Your task to perform on an android device: toggle notification dots Image 0: 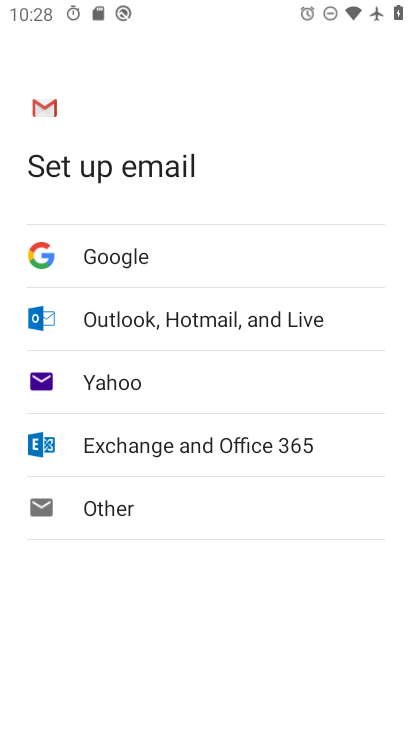
Step 0: press home button
Your task to perform on an android device: toggle notification dots Image 1: 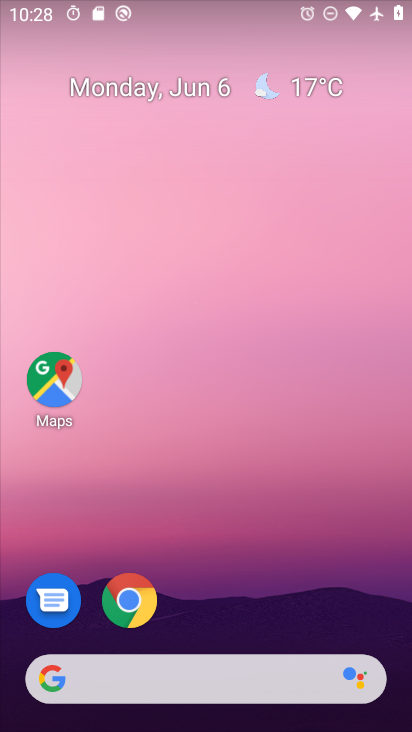
Step 1: drag from (330, 617) to (176, 18)
Your task to perform on an android device: toggle notification dots Image 2: 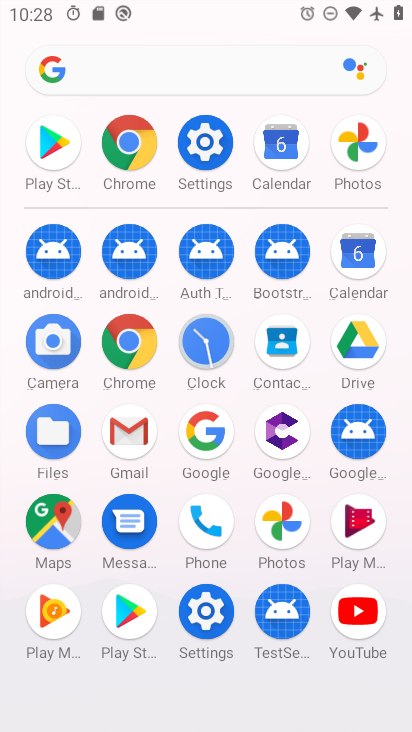
Step 2: click (208, 142)
Your task to perform on an android device: toggle notification dots Image 3: 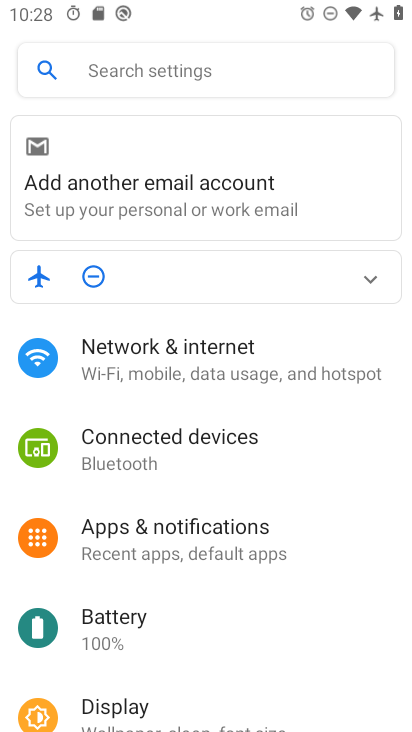
Step 3: click (251, 527)
Your task to perform on an android device: toggle notification dots Image 4: 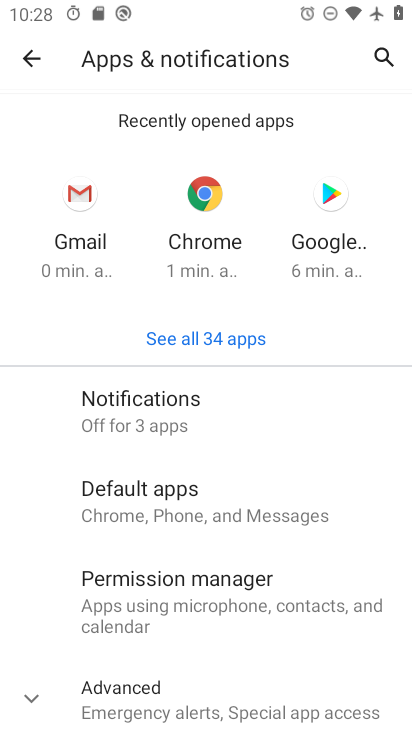
Step 4: drag from (265, 656) to (251, 424)
Your task to perform on an android device: toggle notification dots Image 5: 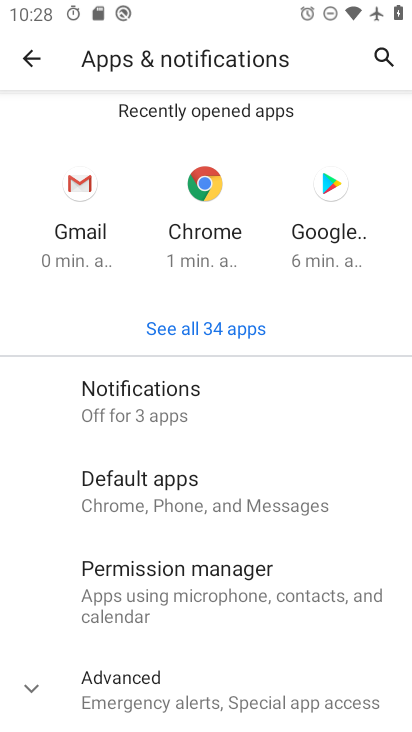
Step 5: click (261, 408)
Your task to perform on an android device: toggle notification dots Image 6: 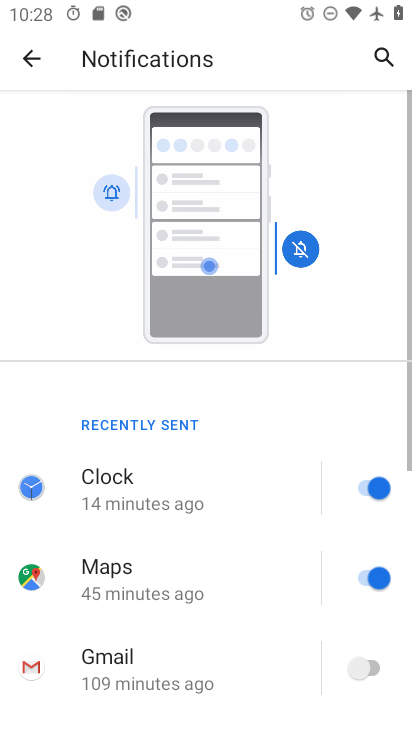
Step 6: drag from (259, 669) to (270, 88)
Your task to perform on an android device: toggle notification dots Image 7: 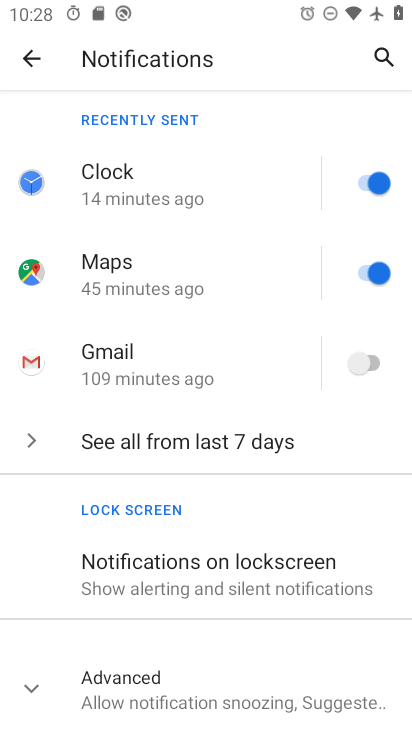
Step 7: click (260, 684)
Your task to perform on an android device: toggle notification dots Image 8: 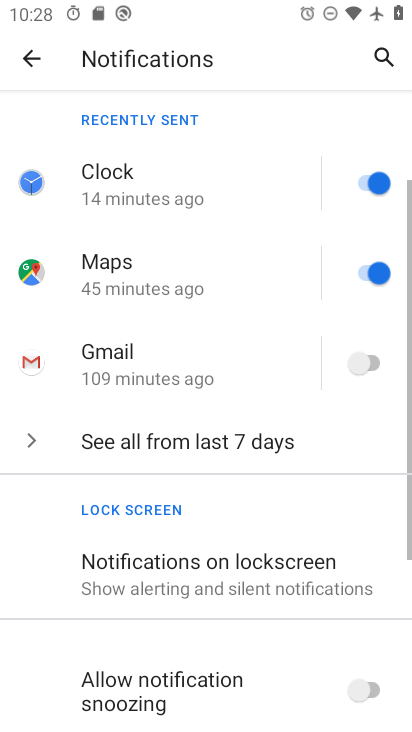
Step 8: drag from (284, 664) to (307, 129)
Your task to perform on an android device: toggle notification dots Image 9: 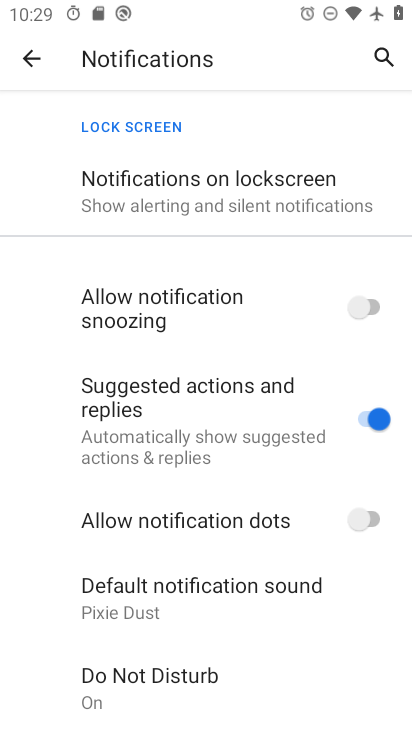
Step 9: click (368, 520)
Your task to perform on an android device: toggle notification dots Image 10: 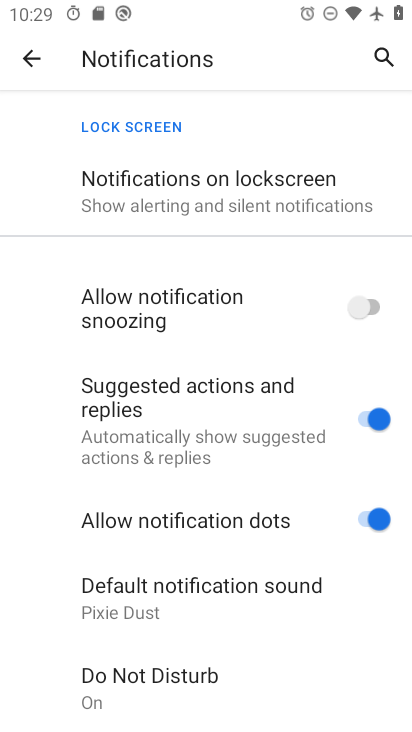
Step 10: task complete